Your task to perform on an android device: Open the calendar app, open the side menu, and click the "Day" option Image 0: 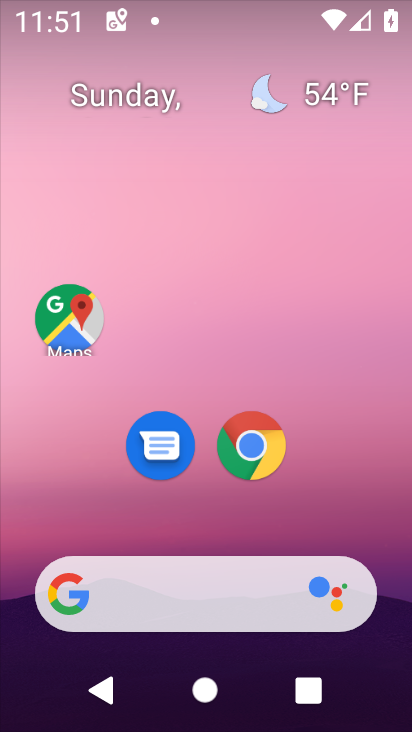
Step 0: drag from (385, 482) to (371, 93)
Your task to perform on an android device: Open the calendar app, open the side menu, and click the "Day" option Image 1: 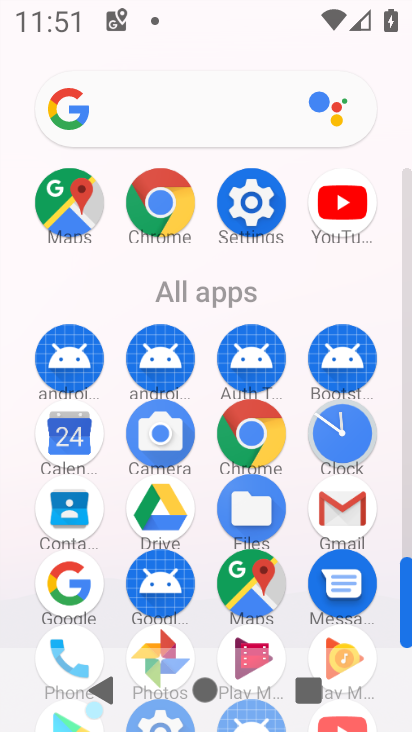
Step 1: click (70, 439)
Your task to perform on an android device: Open the calendar app, open the side menu, and click the "Day" option Image 2: 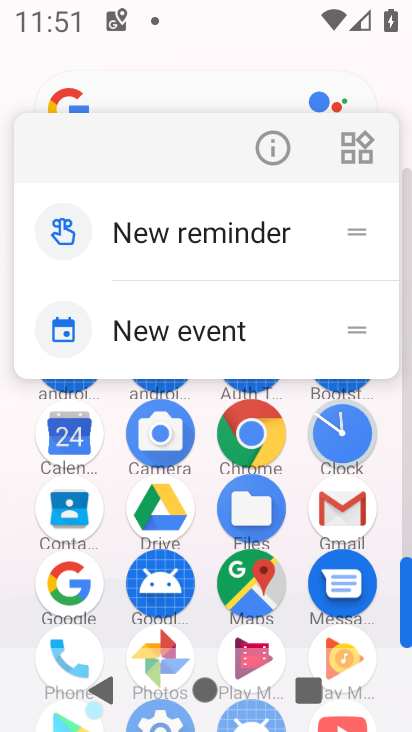
Step 2: click (88, 462)
Your task to perform on an android device: Open the calendar app, open the side menu, and click the "Day" option Image 3: 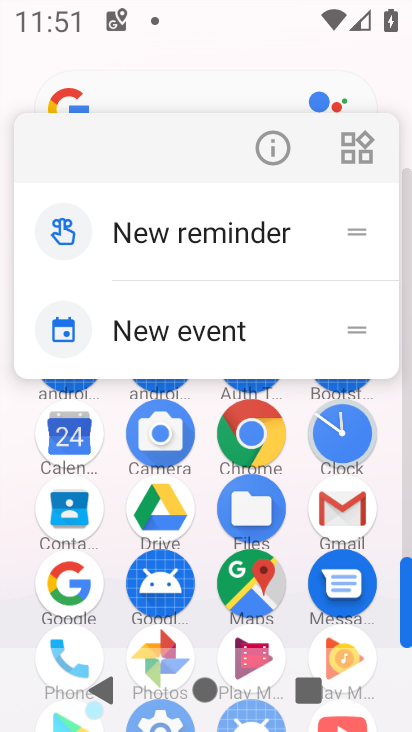
Step 3: click (79, 449)
Your task to perform on an android device: Open the calendar app, open the side menu, and click the "Day" option Image 4: 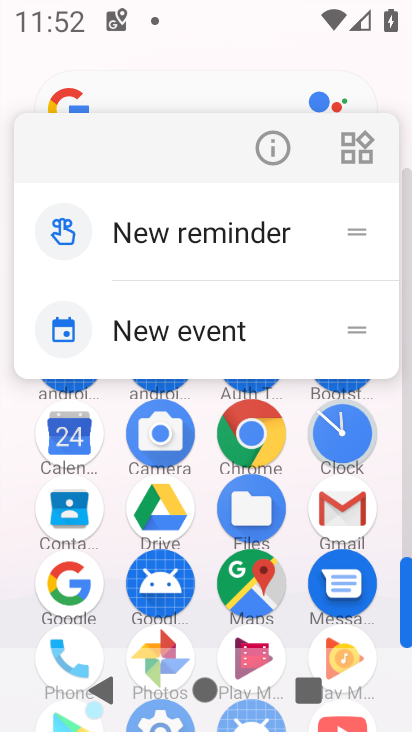
Step 4: click (67, 453)
Your task to perform on an android device: Open the calendar app, open the side menu, and click the "Day" option Image 5: 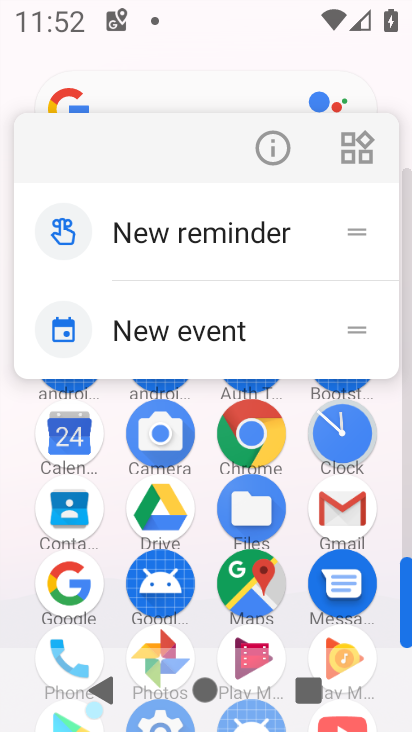
Step 5: click (44, 414)
Your task to perform on an android device: Open the calendar app, open the side menu, and click the "Day" option Image 6: 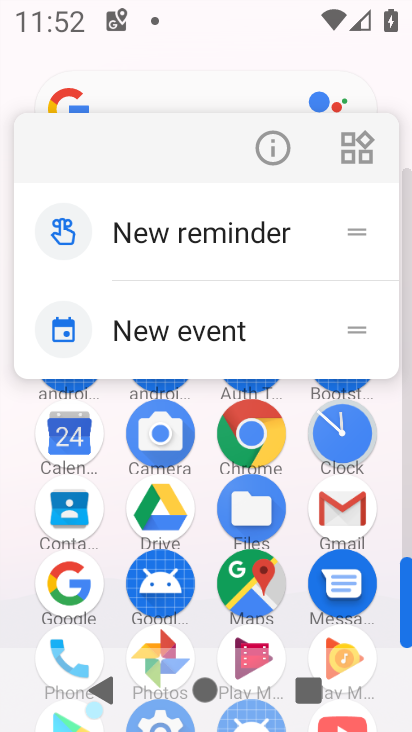
Step 6: click (40, 423)
Your task to perform on an android device: Open the calendar app, open the side menu, and click the "Day" option Image 7: 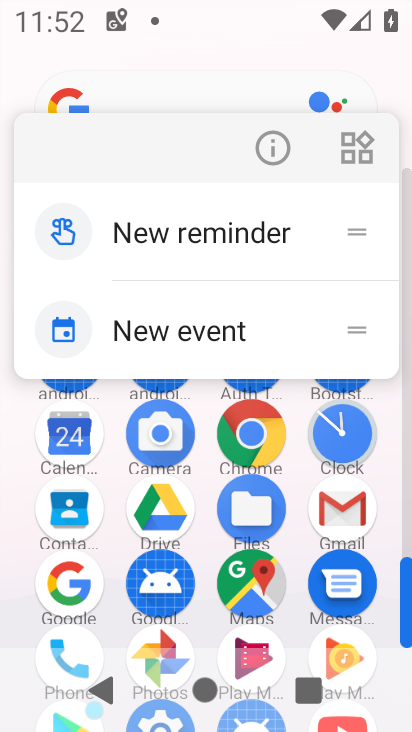
Step 7: click (32, 427)
Your task to perform on an android device: Open the calendar app, open the side menu, and click the "Day" option Image 8: 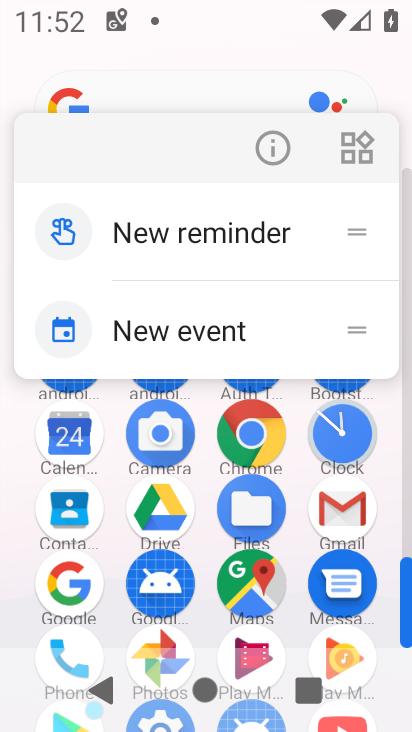
Step 8: click (41, 451)
Your task to perform on an android device: Open the calendar app, open the side menu, and click the "Day" option Image 9: 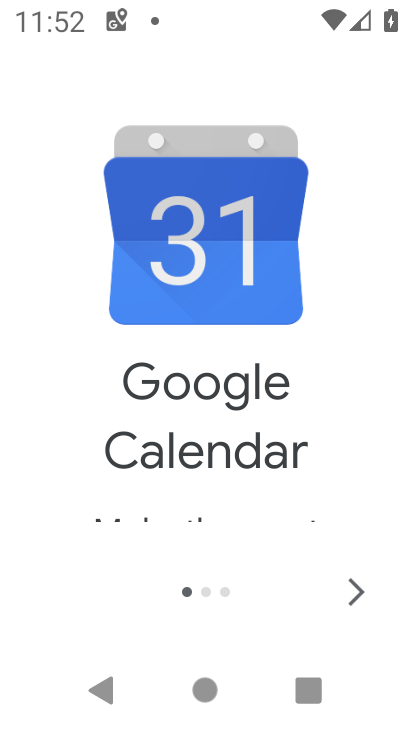
Step 9: click (357, 589)
Your task to perform on an android device: Open the calendar app, open the side menu, and click the "Day" option Image 10: 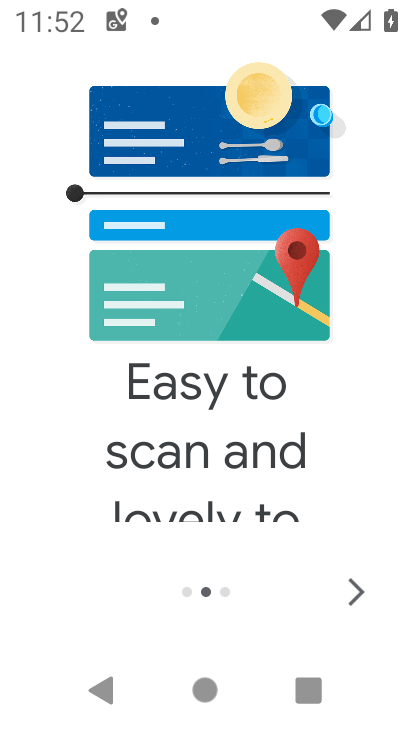
Step 10: click (357, 584)
Your task to perform on an android device: Open the calendar app, open the side menu, and click the "Day" option Image 11: 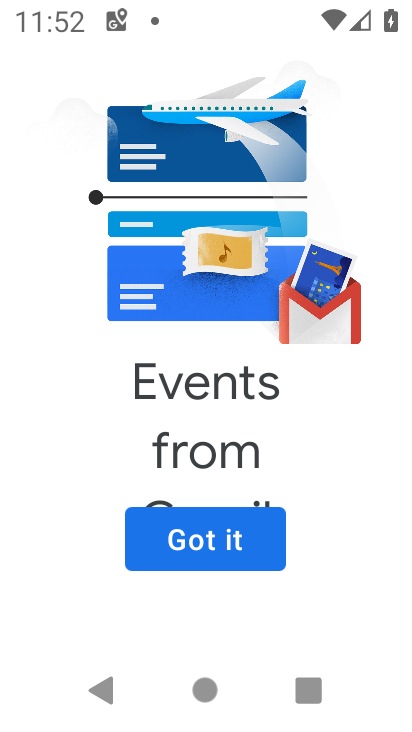
Step 11: click (235, 550)
Your task to perform on an android device: Open the calendar app, open the side menu, and click the "Day" option Image 12: 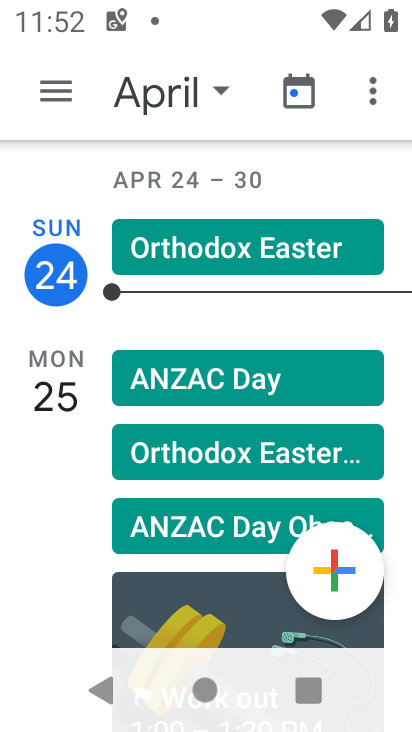
Step 12: click (58, 88)
Your task to perform on an android device: Open the calendar app, open the side menu, and click the "Day" option Image 13: 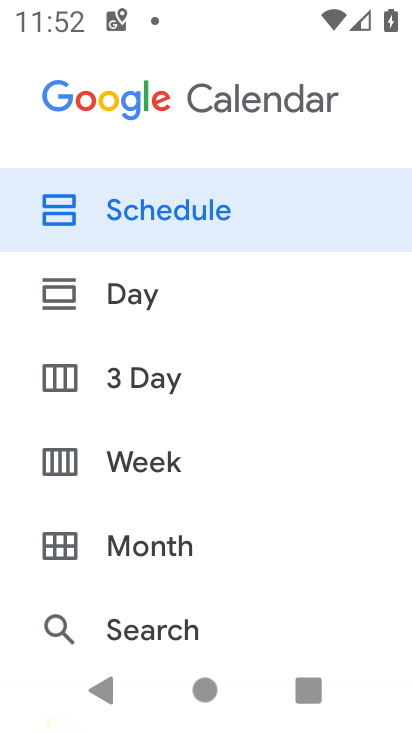
Step 13: click (118, 302)
Your task to perform on an android device: Open the calendar app, open the side menu, and click the "Day" option Image 14: 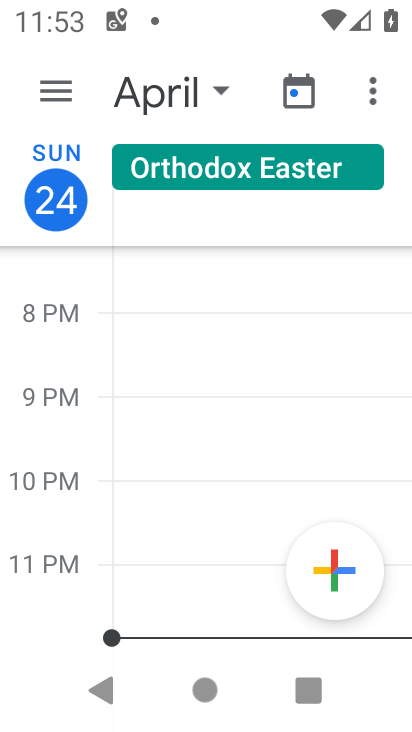
Step 14: task complete